Your task to perform on an android device: Go to display settings Image 0: 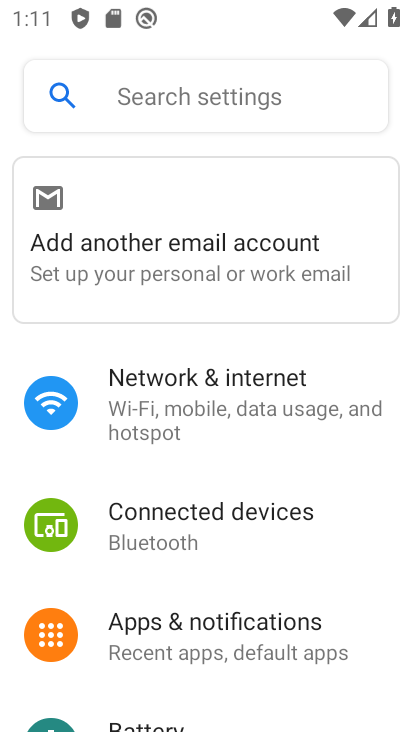
Step 0: drag from (170, 602) to (248, 216)
Your task to perform on an android device: Go to display settings Image 1: 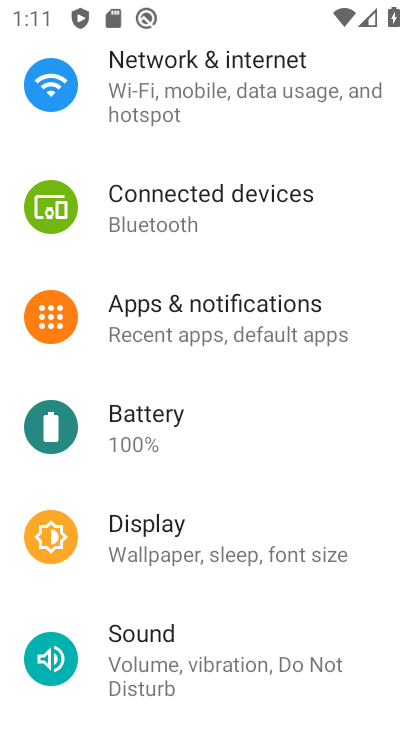
Step 1: click (175, 551)
Your task to perform on an android device: Go to display settings Image 2: 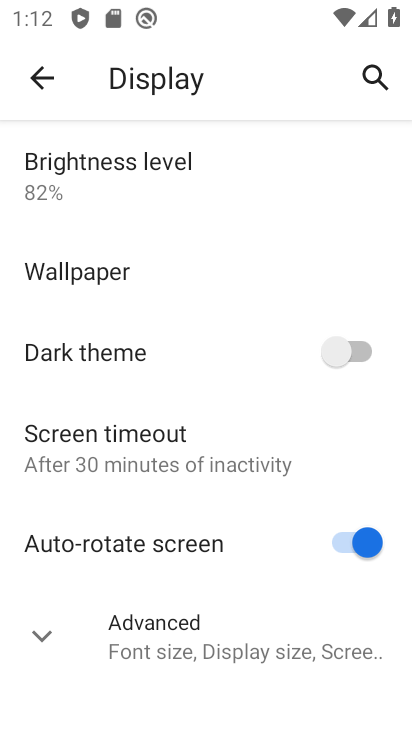
Step 2: drag from (119, 564) to (166, 205)
Your task to perform on an android device: Go to display settings Image 3: 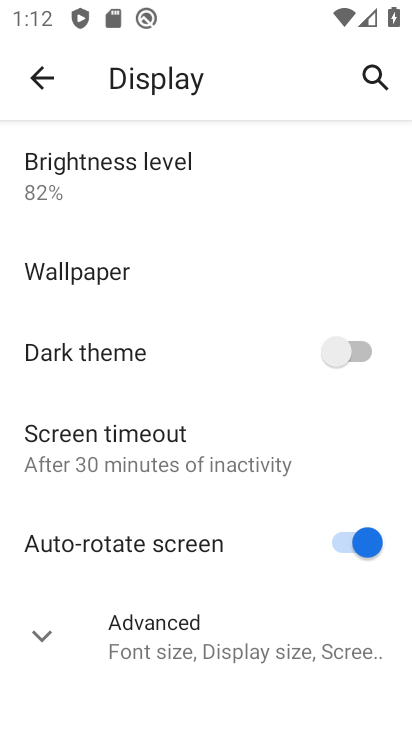
Step 3: click (145, 635)
Your task to perform on an android device: Go to display settings Image 4: 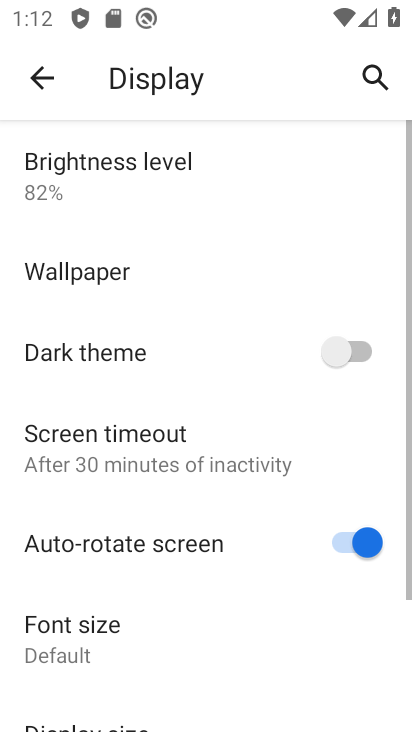
Step 4: drag from (150, 608) to (243, 182)
Your task to perform on an android device: Go to display settings Image 5: 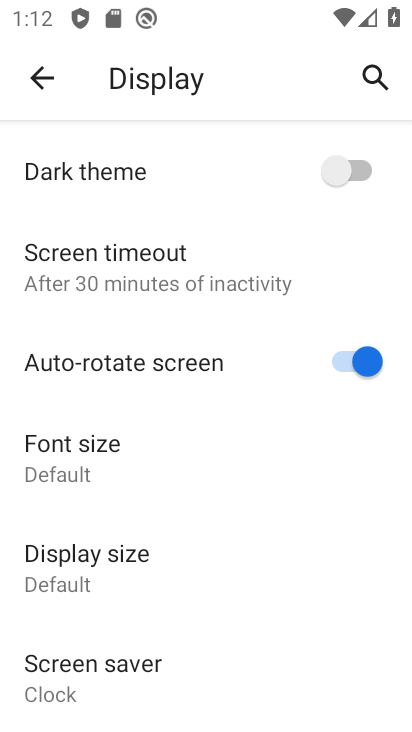
Step 5: drag from (111, 676) to (214, 186)
Your task to perform on an android device: Go to display settings Image 6: 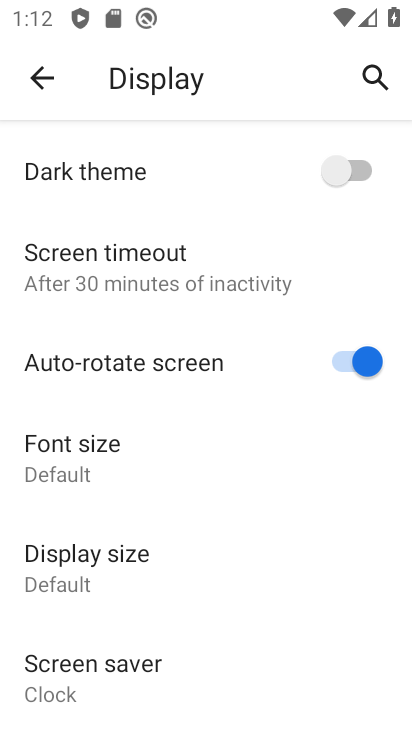
Step 6: click (34, 67)
Your task to perform on an android device: Go to display settings Image 7: 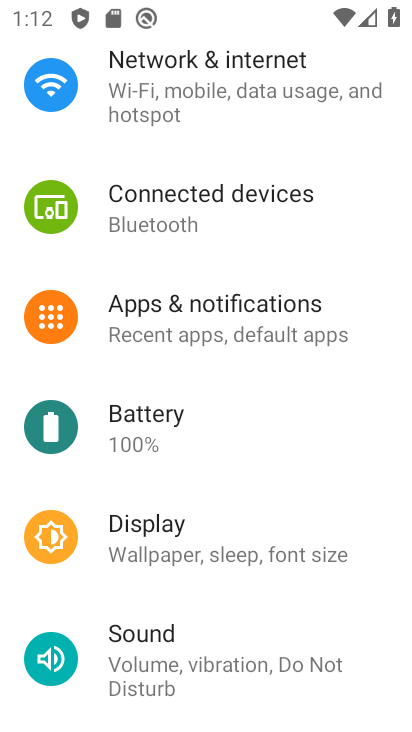
Step 7: task complete